Your task to perform on an android device: change the upload size in google photos Image 0: 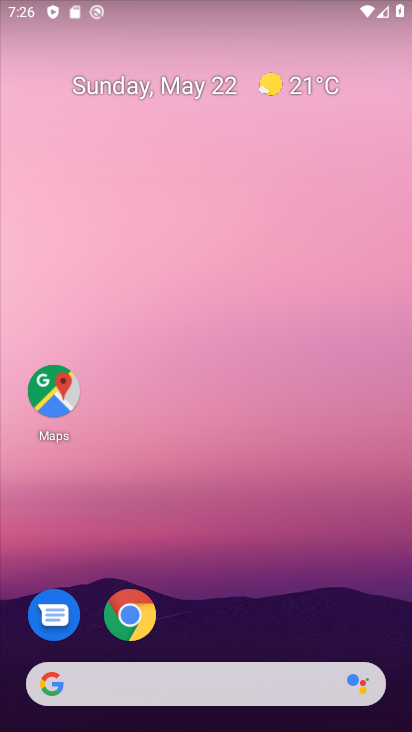
Step 0: drag from (271, 584) to (275, 295)
Your task to perform on an android device: change the upload size in google photos Image 1: 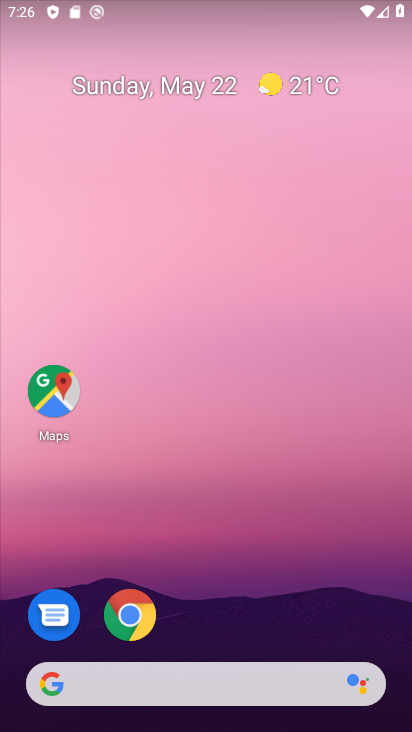
Step 1: drag from (268, 567) to (298, 321)
Your task to perform on an android device: change the upload size in google photos Image 2: 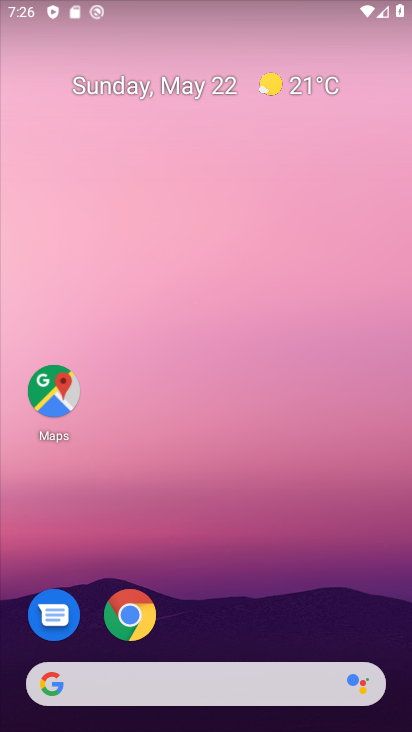
Step 2: drag from (257, 620) to (227, 196)
Your task to perform on an android device: change the upload size in google photos Image 3: 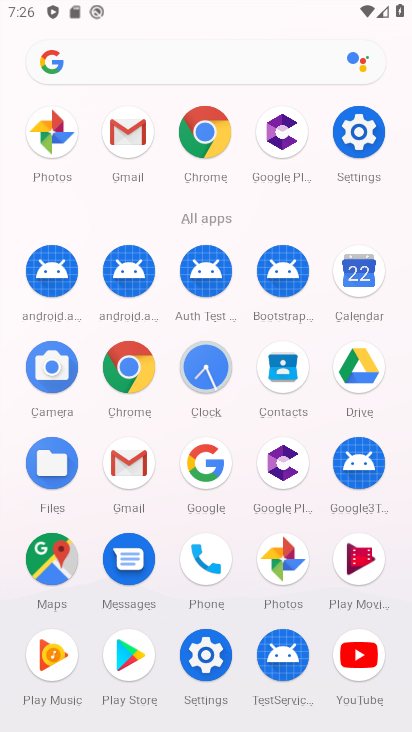
Step 3: click (281, 558)
Your task to perform on an android device: change the upload size in google photos Image 4: 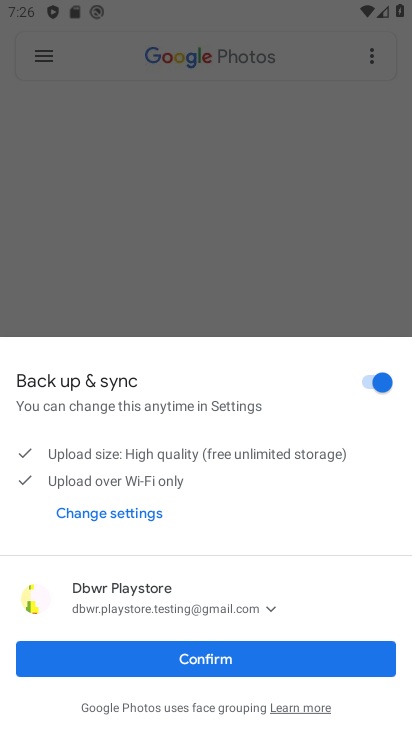
Step 4: click (218, 648)
Your task to perform on an android device: change the upload size in google photos Image 5: 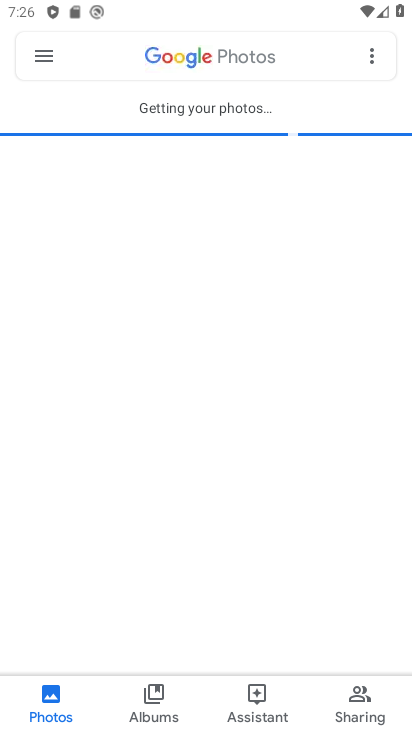
Step 5: click (51, 53)
Your task to perform on an android device: change the upload size in google photos Image 6: 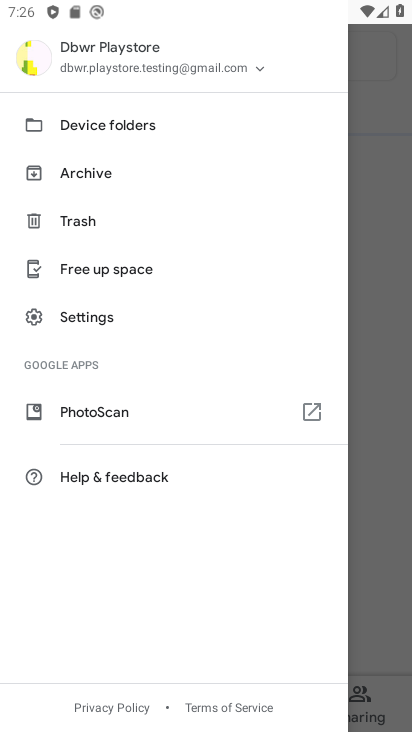
Step 6: click (105, 309)
Your task to perform on an android device: change the upload size in google photos Image 7: 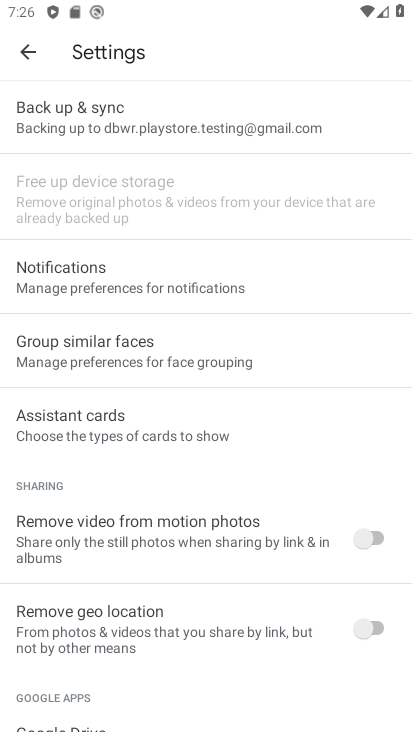
Step 7: click (198, 592)
Your task to perform on an android device: change the upload size in google photos Image 8: 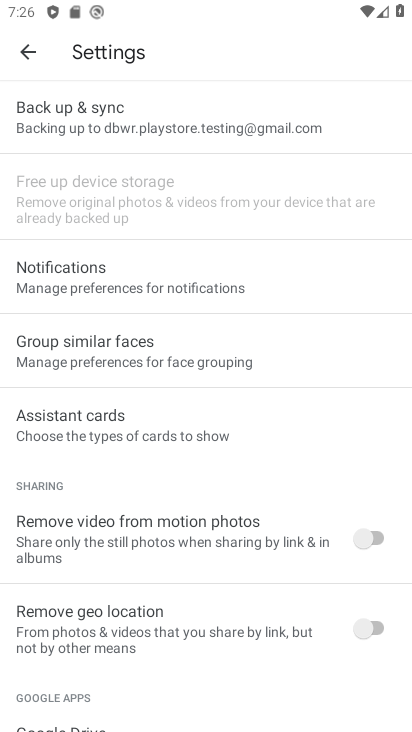
Step 8: click (143, 96)
Your task to perform on an android device: change the upload size in google photos Image 9: 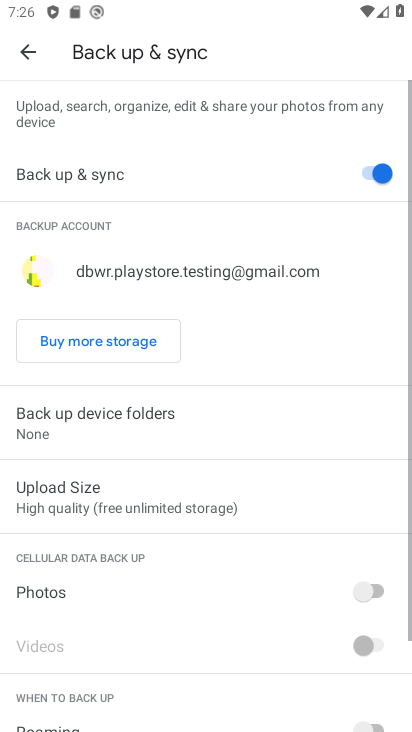
Step 9: click (170, 496)
Your task to perform on an android device: change the upload size in google photos Image 10: 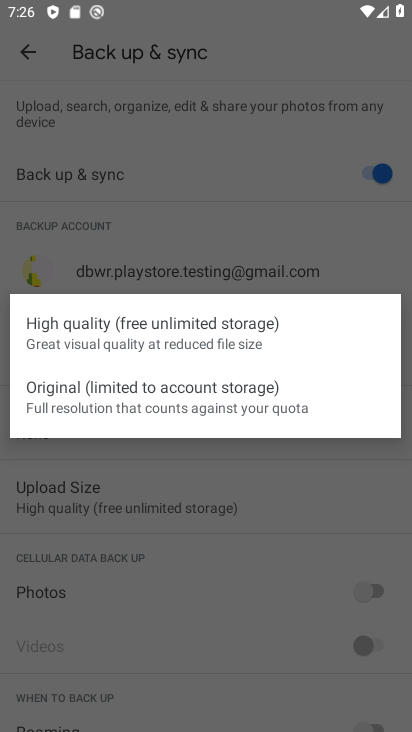
Step 10: click (148, 409)
Your task to perform on an android device: change the upload size in google photos Image 11: 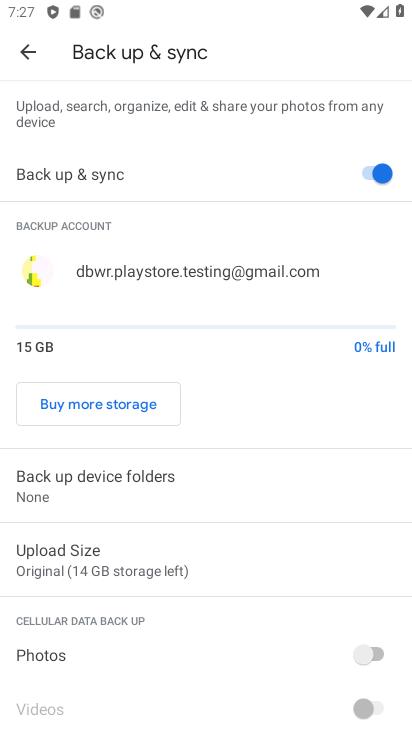
Step 11: task complete